Your task to perform on an android device: Empty the shopping cart on costco. Add "bose soundlink" to the cart on costco, then select checkout. Image 0: 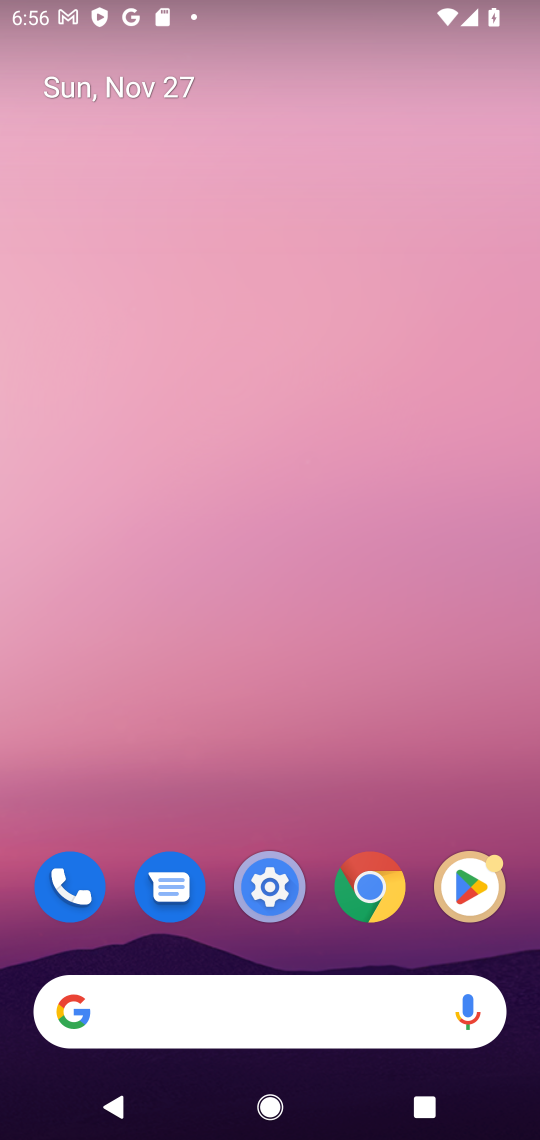
Step 0: press home button
Your task to perform on an android device: Empty the shopping cart on costco. Add "bose soundlink" to the cart on costco, then select checkout. Image 1: 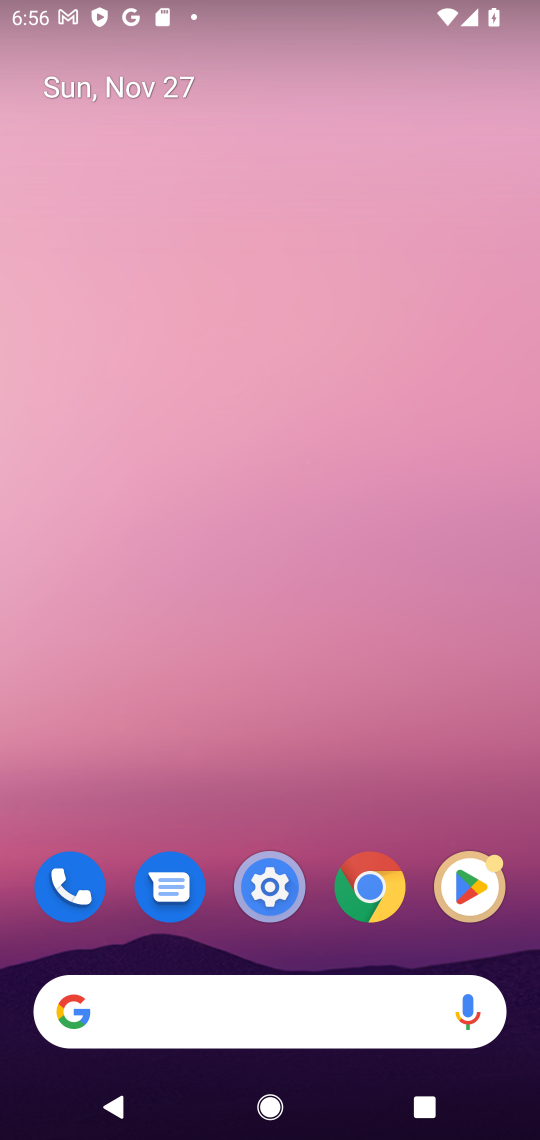
Step 1: click (339, 1028)
Your task to perform on an android device: Empty the shopping cart on costco. Add "bose soundlink" to the cart on costco, then select checkout. Image 2: 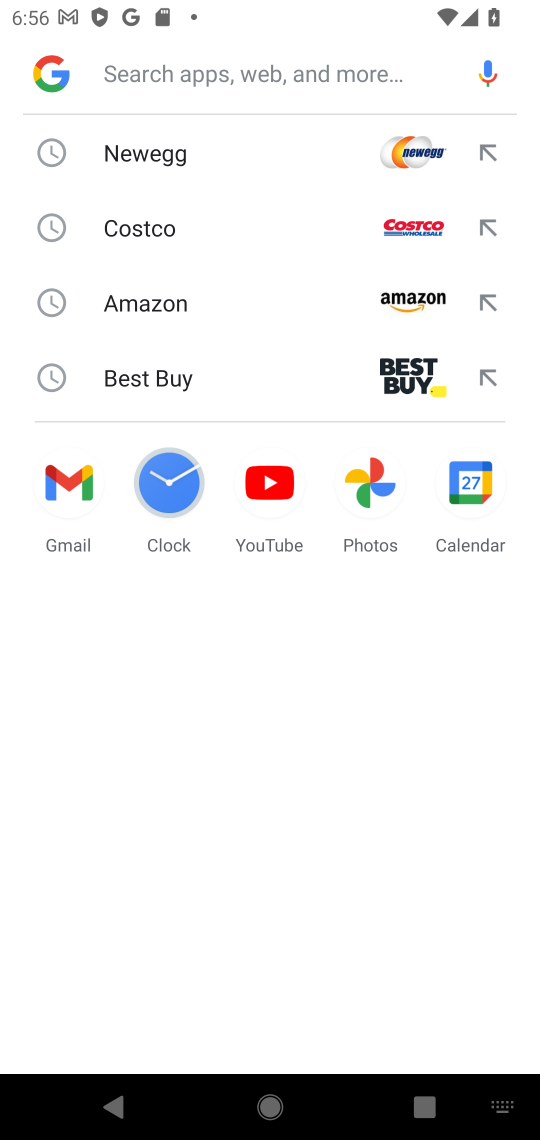
Step 2: click (166, 241)
Your task to perform on an android device: Empty the shopping cart on costco. Add "bose soundlink" to the cart on costco, then select checkout. Image 3: 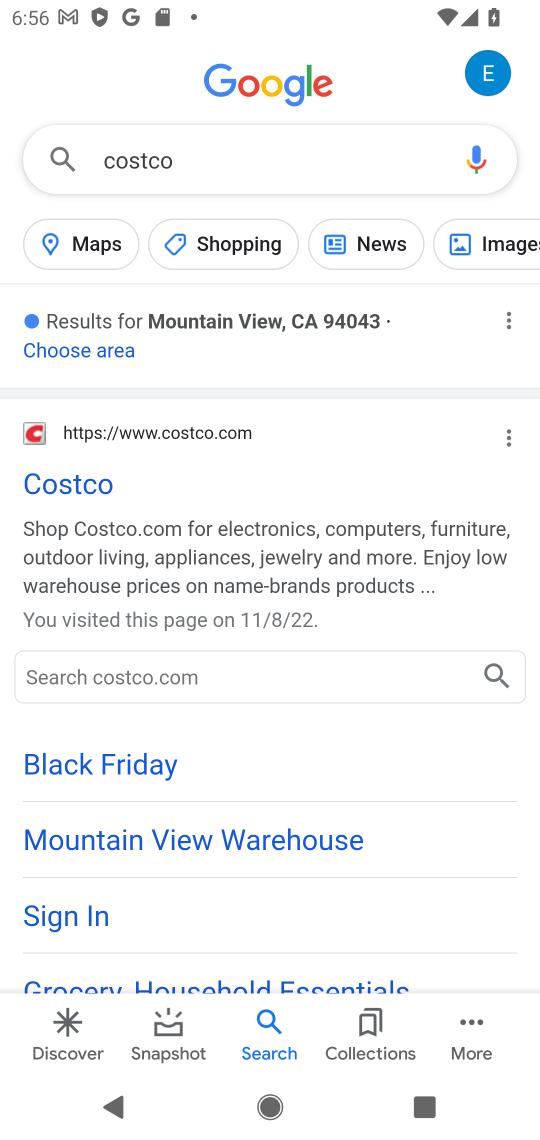
Step 3: click (97, 486)
Your task to perform on an android device: Empty the shopping cart on costco. Add "bose soundlink" to the cart on costco, then select checkout. Image 4: 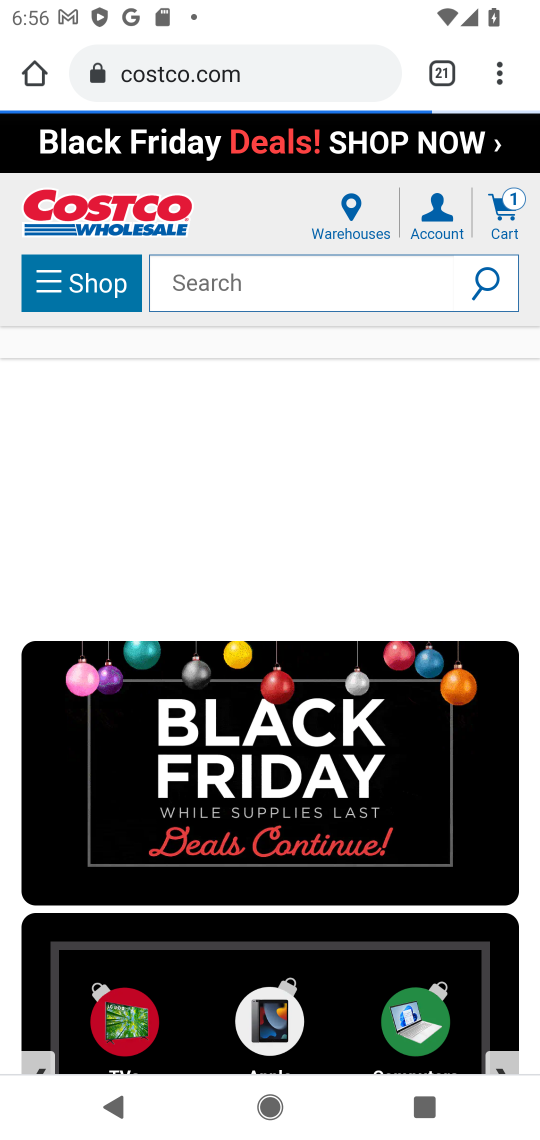
Step 4: click (267, 279)
Your task to perform on an android device: Empty the shopping cart on costco. Add "bose soundlink" to the cart on costco, then select checkout. Image 5: 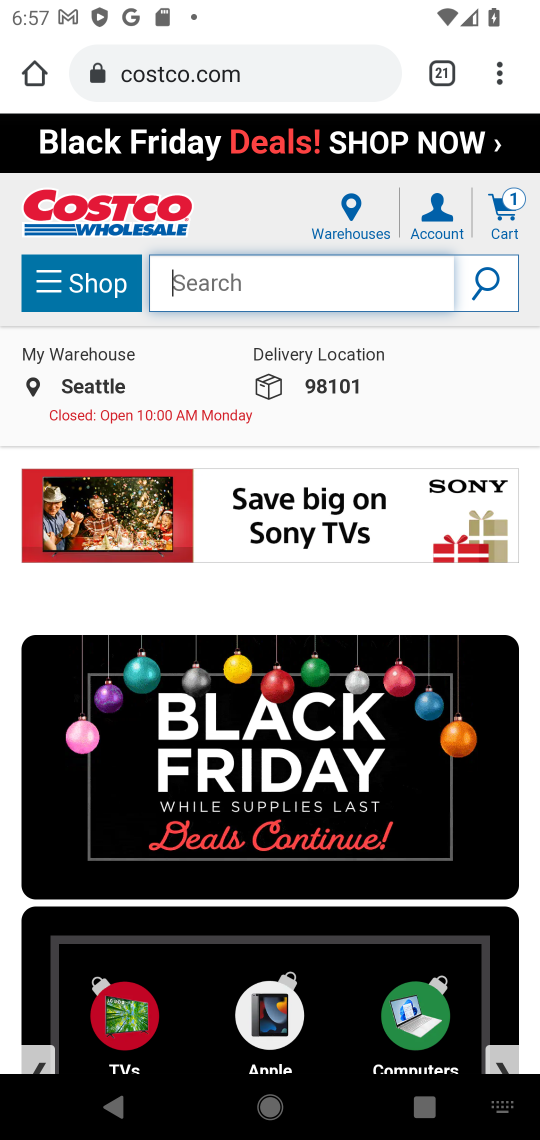
Step 5: type "bose soundlink"
Your task to perform on an android device: Empty the shopping cart on costco. Add "bose soundlink" to the cart on costco, then select checkout. Image 6: 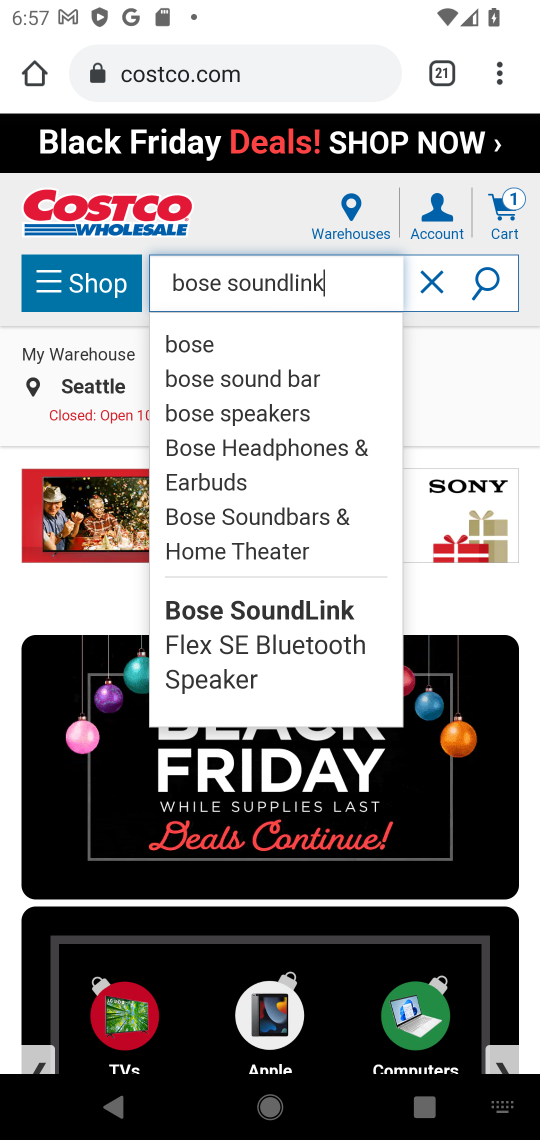
Step 6: click (478, 286)
Your task to perform on an android device: Empty the shopping cart on costco. Add "bose soundlink" to the cart on costco, then select checkout. Image 7: 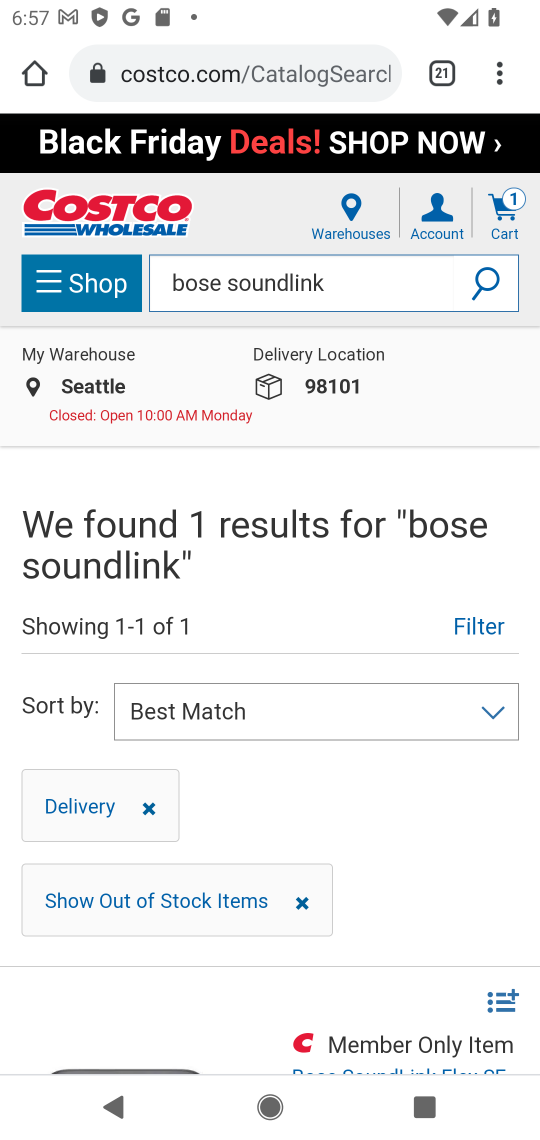
Step 7: click (386, 1056)
Your task to perform on an android device: Empty the shopping cart on costco. Add "bose soundlink" to the cart on costco, then select checkout. Image 8: 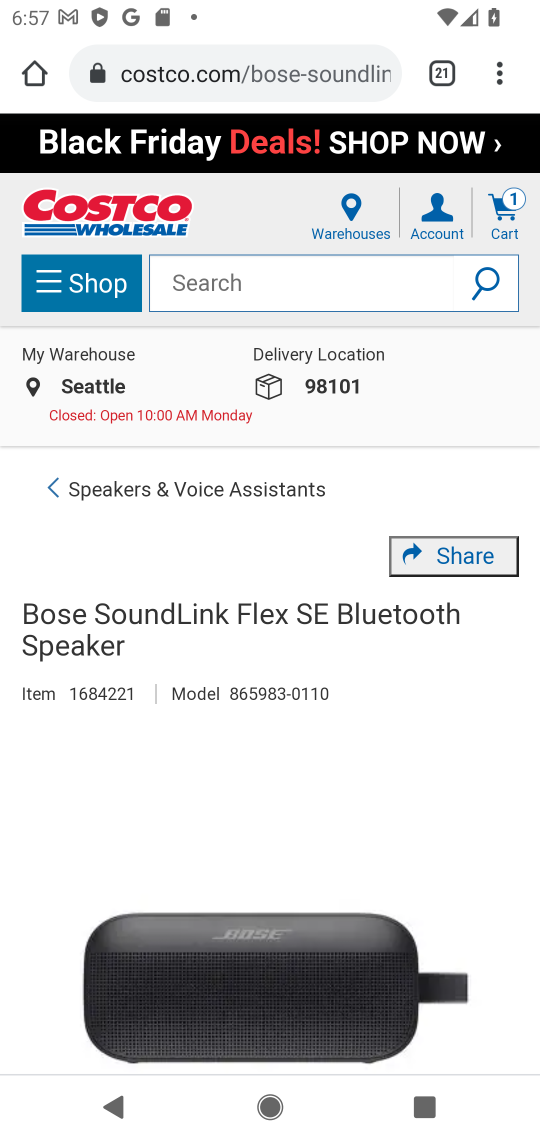
Step 8: drag from (422, 823) to (347, 474)
Your task to perform on an android device: Empty the shopping cart on costco. Add "bose soundlink" to the cart on costco, then select checkout. Image 9: 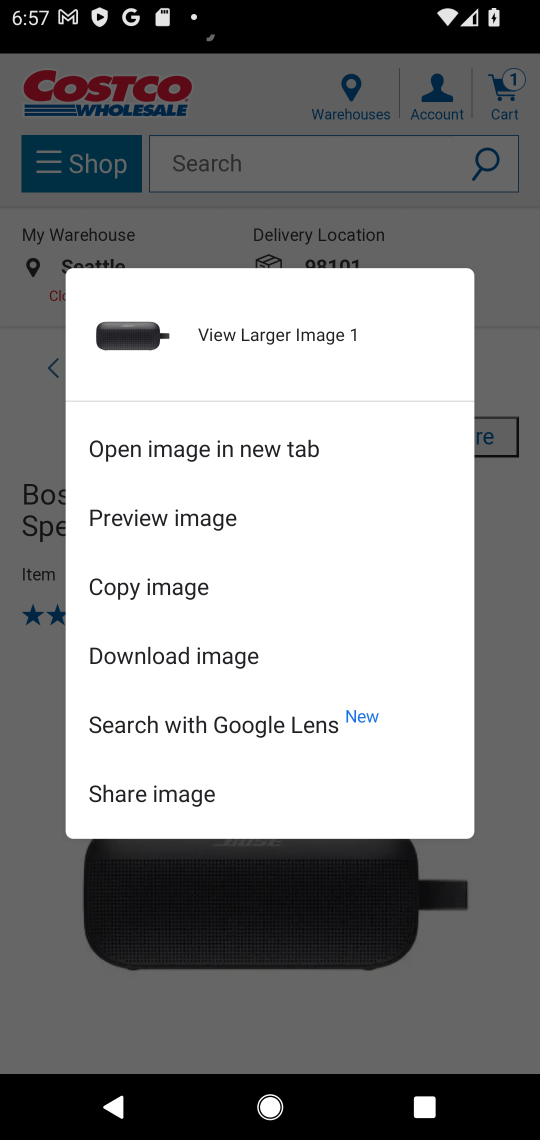
Step 9: click (497, 568)
Your task to perform on an android device: Empty the shopping cart on costco. Add "bose soundlink" to the cart on costco, then select checkout. Image 10: 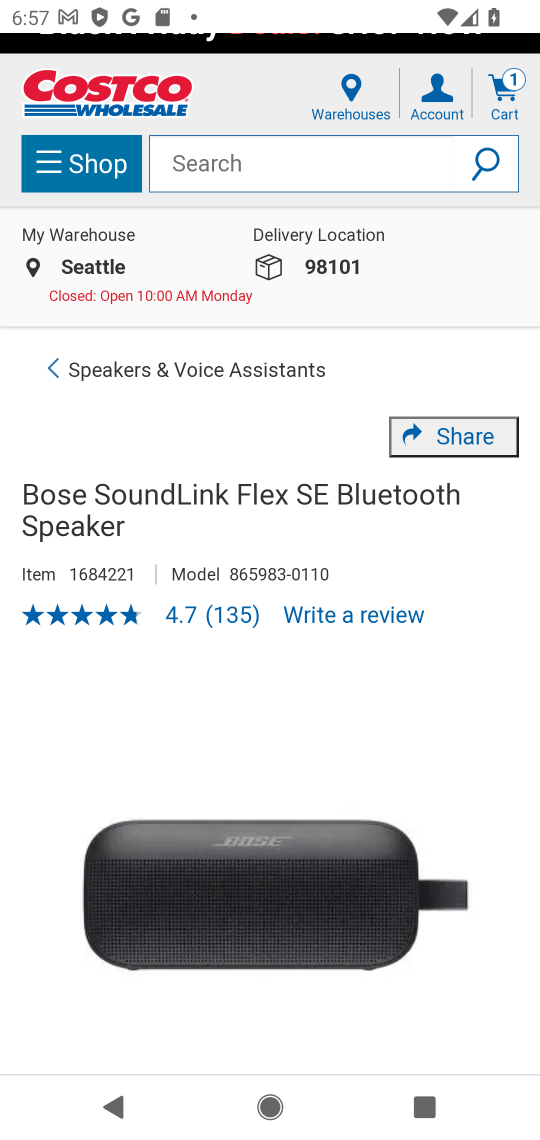
Step 10: drag from (325, 749) to (315, 305)
Your task to perform on an android device: Empty the shopping cart on costco. Add "bose soundlink" to the cart on costco, then select checkout. Image 11: 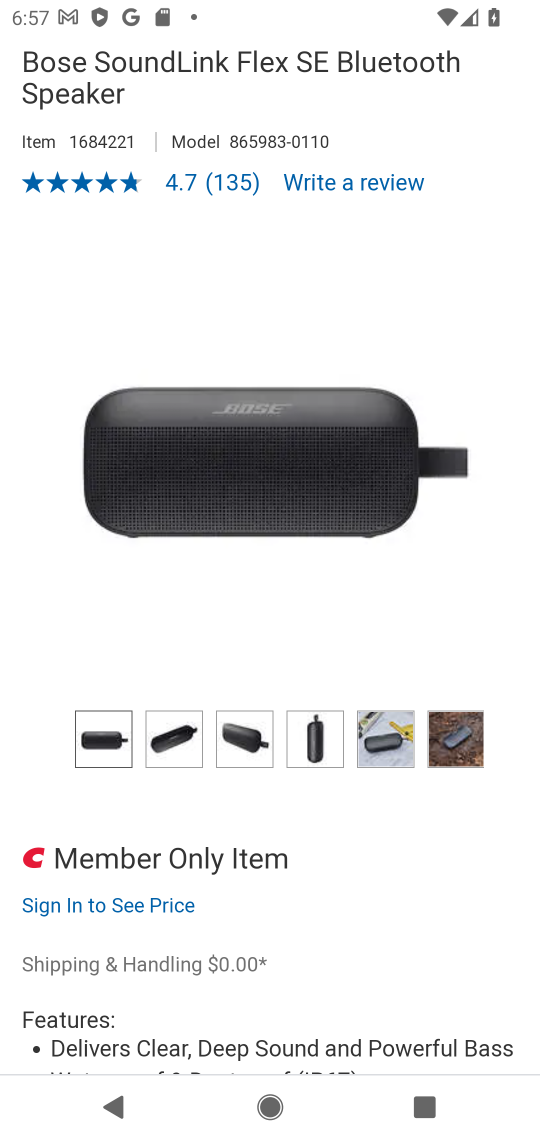
Step 11: drag from (383, 843) to (360, 548)
Your task to perform on an android device: Empty the shopping cart on costco. Add "bose soundlink" to the cart on costco, then select checkout. Image 12: 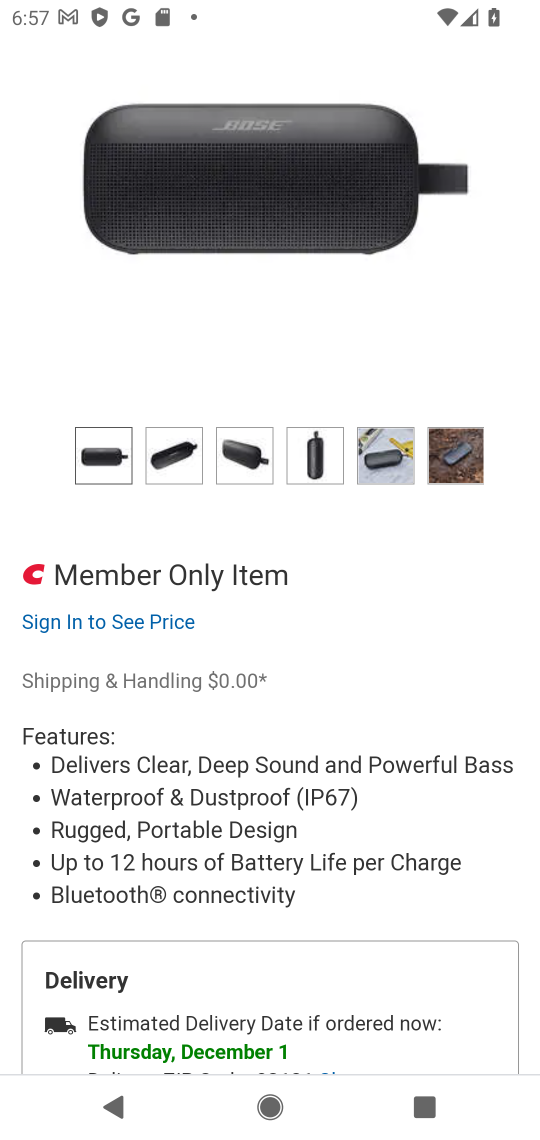
Step 12: drag from (404, 905) to (391, 392)
Your task to perform on an android device: Empty the shopping cart on costco. Add "bose soundlink" to the cart on costco, then select checkout. Image 13: 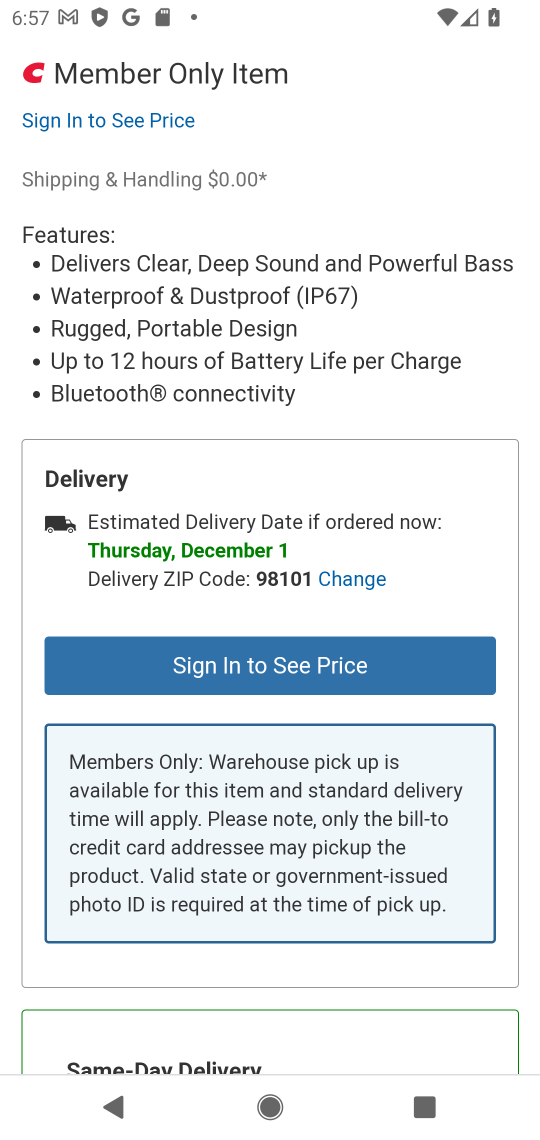
Step 13: drag from (408, 965) to (389, 422)
Your task to perform on an android device: Empty the shopping cart on costco. Add "bose soundlink" to the cart on costco, then select checkout. Image 14: 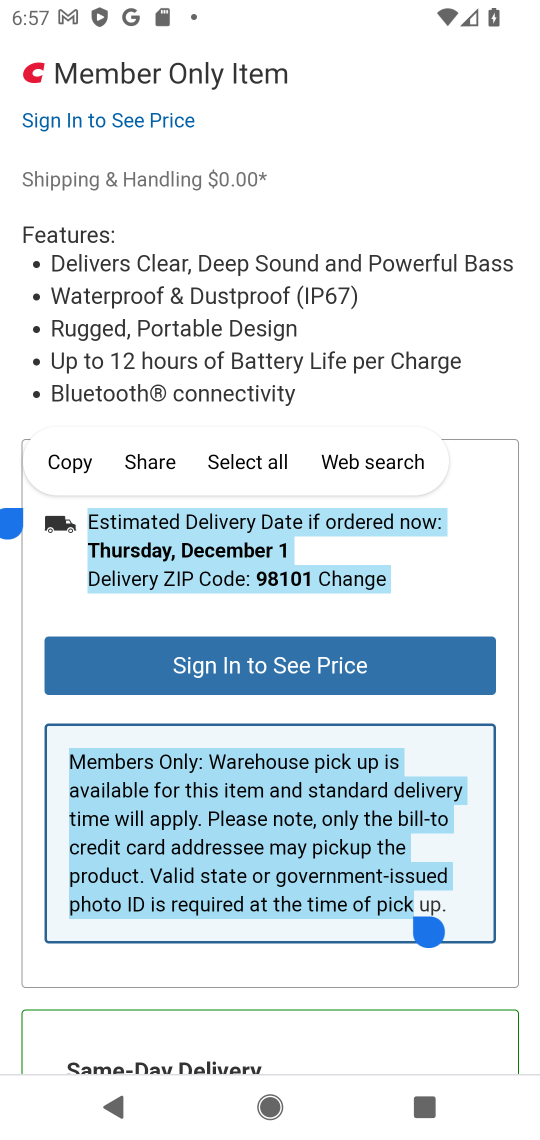
Step 14: click (491, 709)
Your task to perform on an android device: Empty the shopping cart on costco. Add "bose soundlink" to the cart on costco, then select checkout. Image 15: 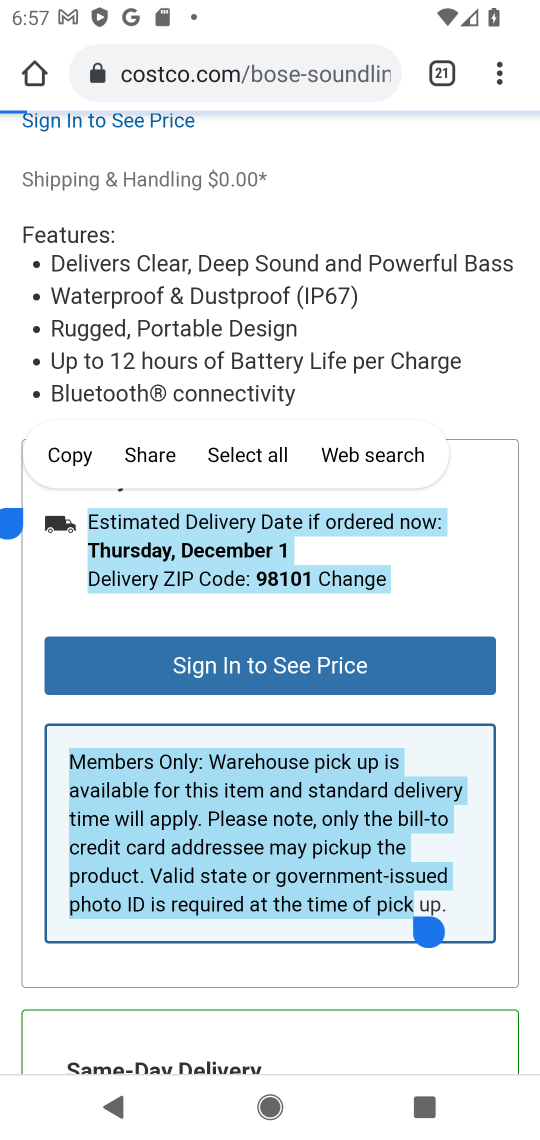
Step 15: task complete